Your task to perform on an android device: Open the calendar and show me this week's events? Image 0: 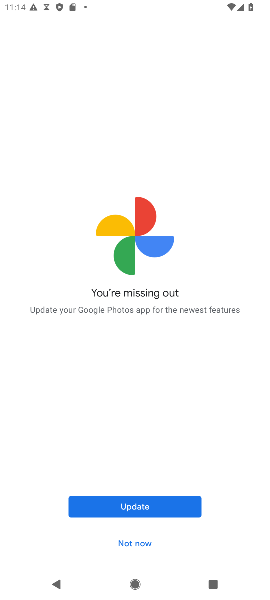
Step 0: press back button
Your task to perform on an android device: Open the calendar and show me this week's events? Image 1: 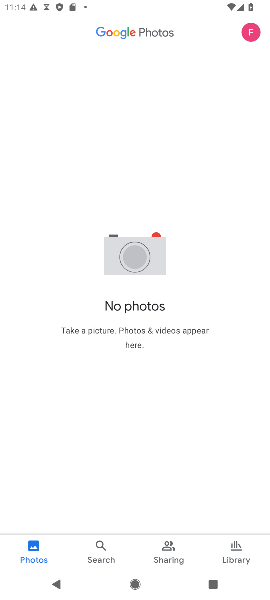
Step 1: press home button
Your task to perform on an android device: Open the calendar and show me this week's events? Image 2: 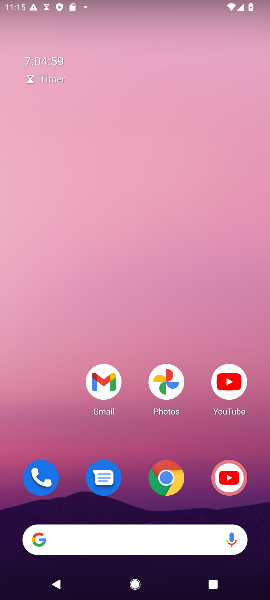
Step 2: drag from (200, 359) to (92, 0)
Your task to perform on an android device: Open the calendar and show me this week's events? Image 3: 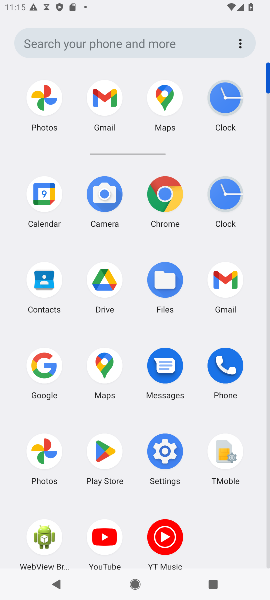
Step 3: click (43, 197)
Your task to perform on an android device: Open the calendar and show me this week's events? Image 4: 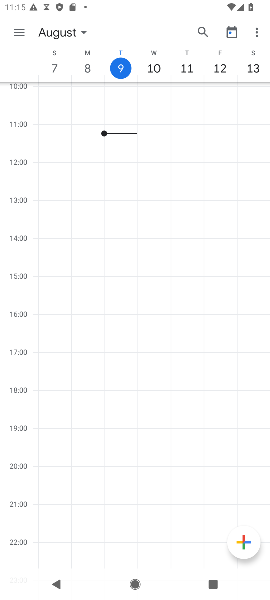
Step 4: task complete